Your task to perform on an android device: turn pop-ups on in chrome Image 0: 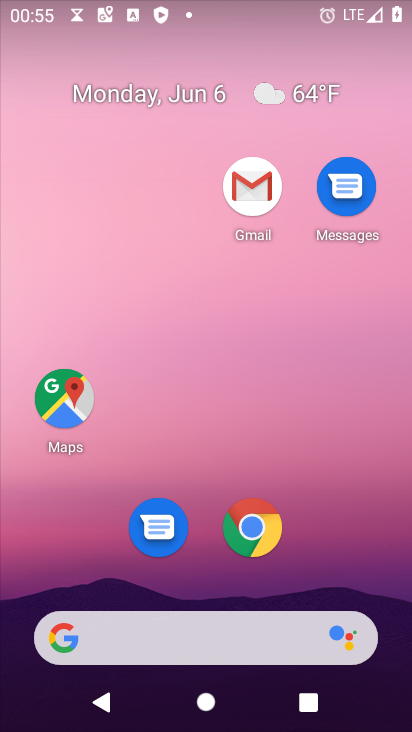
Step 0: click (239, 520)
Your task to perform on an android device: turn pop-ups on in chrome Image 1: 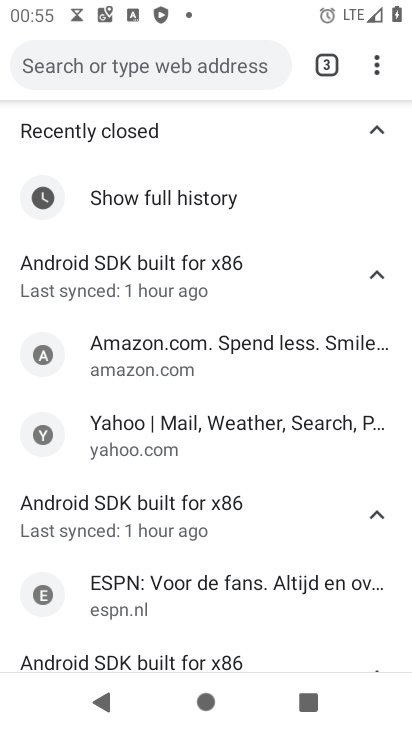
Step 1: click (381, 69)
Your task to perform on an android device: turn pop-ups on in chrome Image 2: 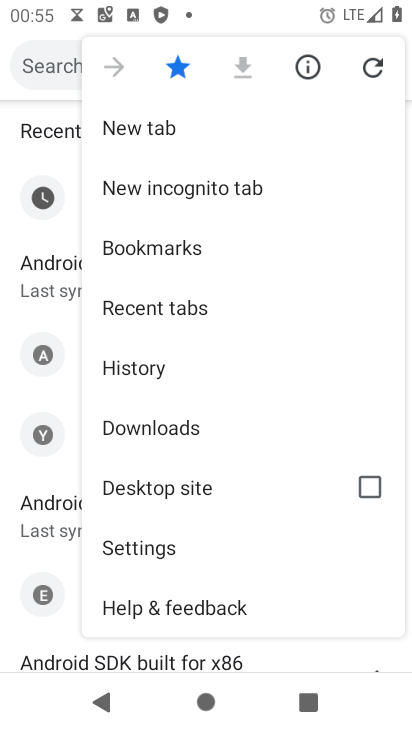
Step 2: click (172, 537)
Your task to perform on an android device: turn pop-ups on in chrome Image 3: 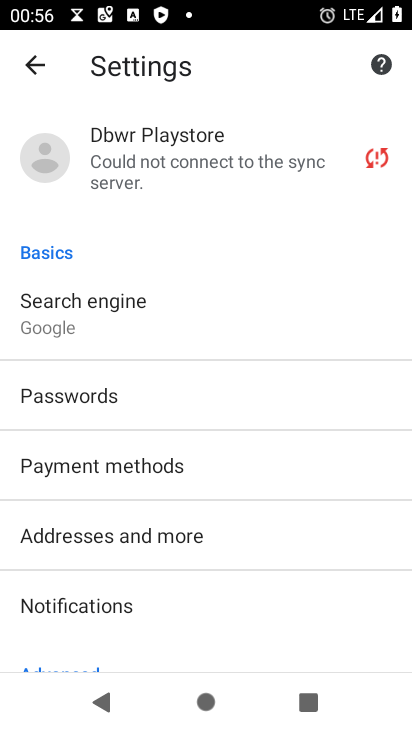
Step 3: drag from (198, 553) to (196, 144)
Your task to perform on an android device: turn pop-ups on in chrome Image 4: 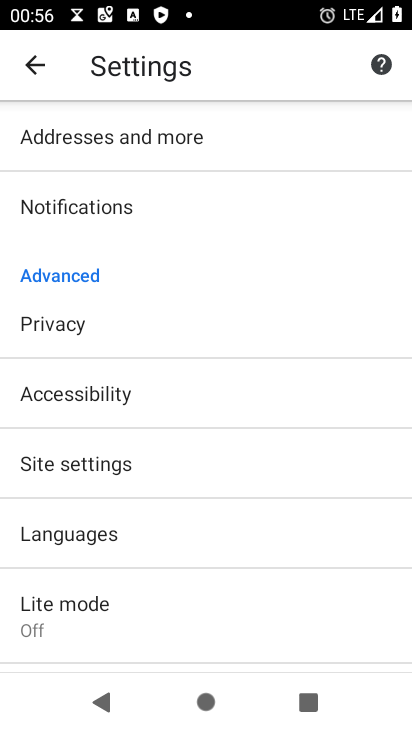
Step 4: click (127, 468)
Your task to perform on an android device: turn pop-ups on in chrome Image 5: 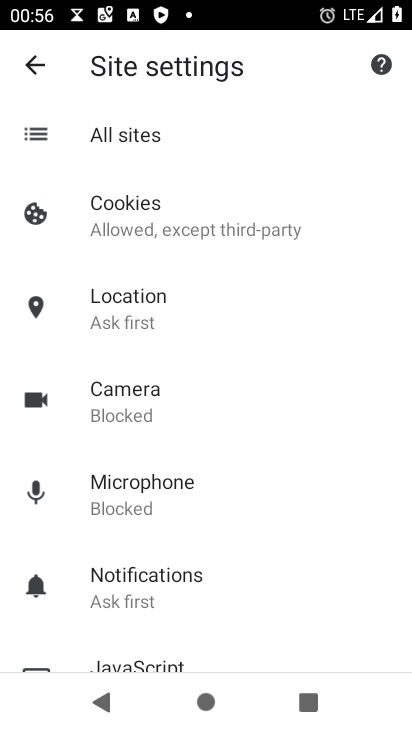
Step 5: drag from (201, 575) to (240, 185)
Your task to perform on an android device: turn pop-ups on in chrome Image 6: 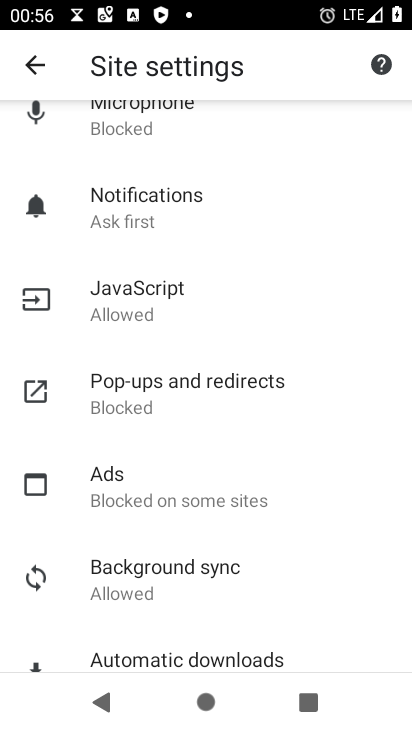
Step 6: click (197, 391)
Your task to perform on an android device: turn pop-ups on in chrome Image 7: 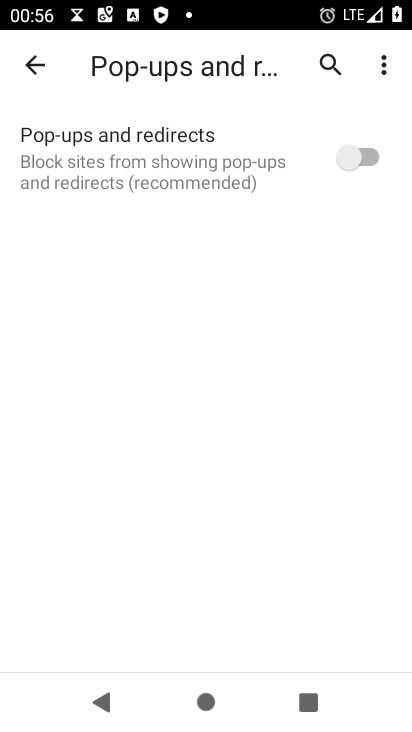
Step 7: click (348, 153)
Your task to perform on an android device: turn pop-ups on in chrome Image 8: 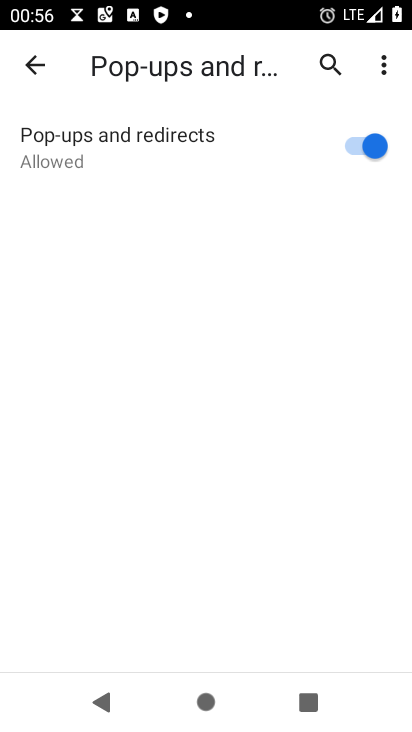
Step 8: task complete